Your task to perform on an android device: toggle priority inbox in the gmail app Image 0: 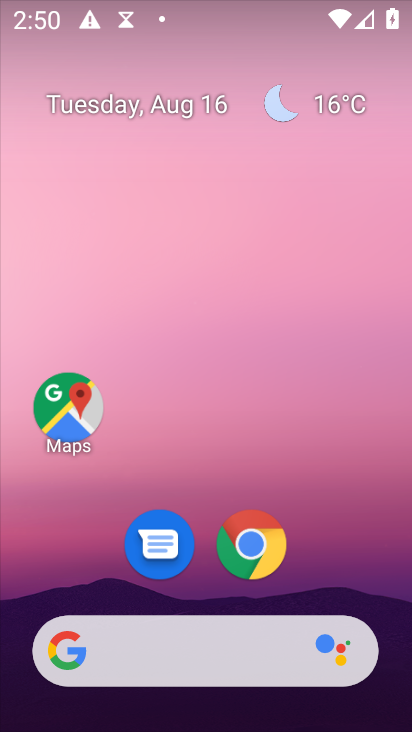
Step 0: drag from (202, 652) to (397, 257)
Your task to perform on an android device: toggle priority inbox in the gmail app Image 1: 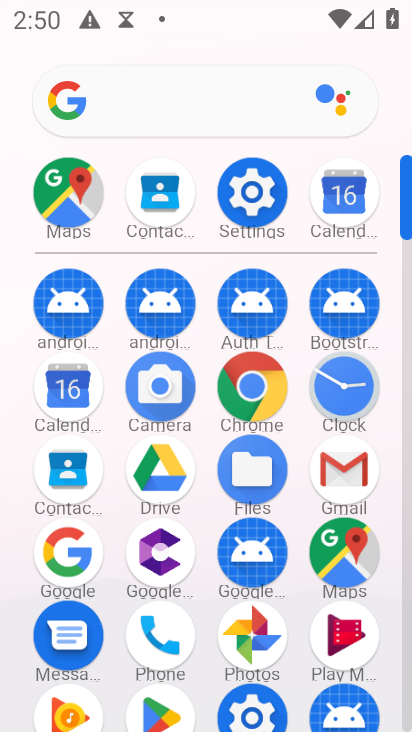
Step 1: click (343, 469)
Your task to perform on an android device: toggle priority inbox in the gmail app Image 2: 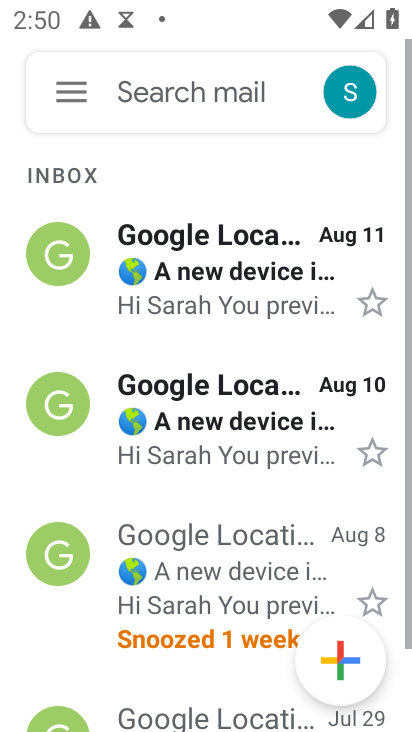
Step 2: click (69, 94)
Your task to perform on an android device: toggle priority inbox in the gmail app Image 3: 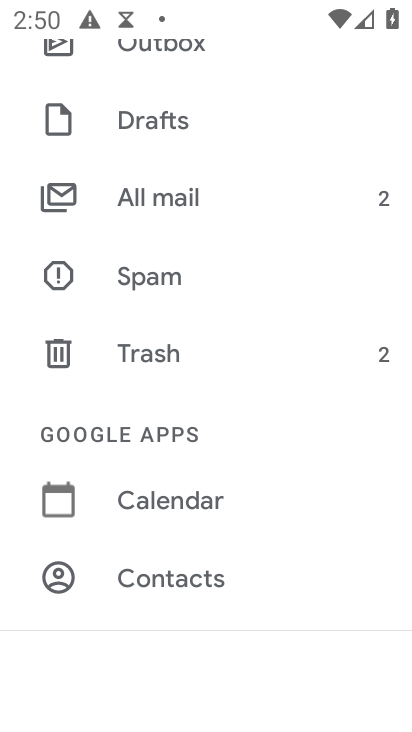
Step 3: drag from (191, 606) to (285, 448)
Your task to perform on an android device: toggle priority inbox in the gmail app Image 4: 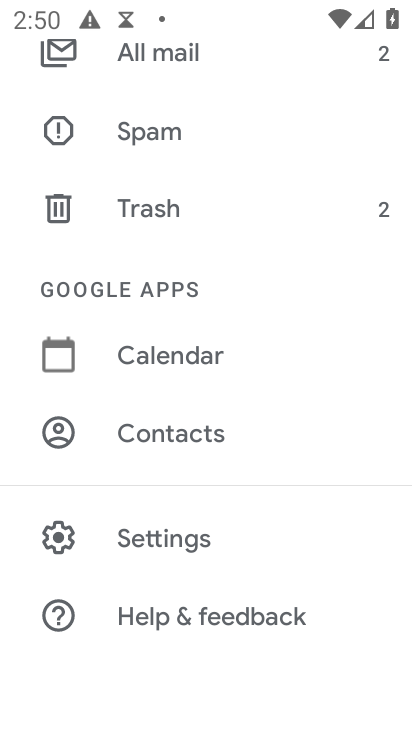
Step 4: click (187, 536)
Your task to perform on an android device: toggle priority inbox in the gmail app Image 5: 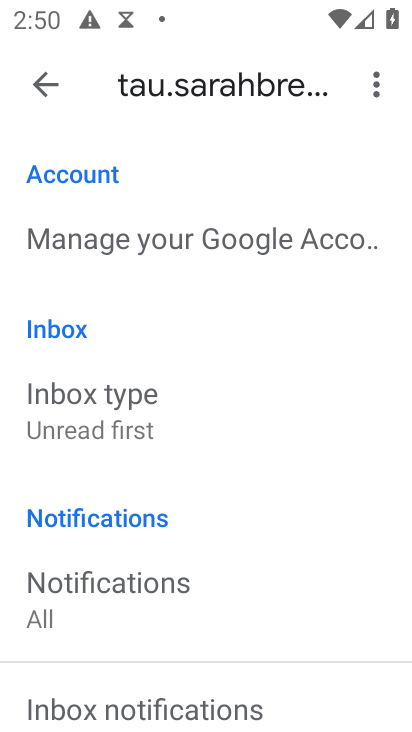
Step 5: click (111, 437)
Your task to perform on an android device: toggle priority inbox in the gmail app Image 6: 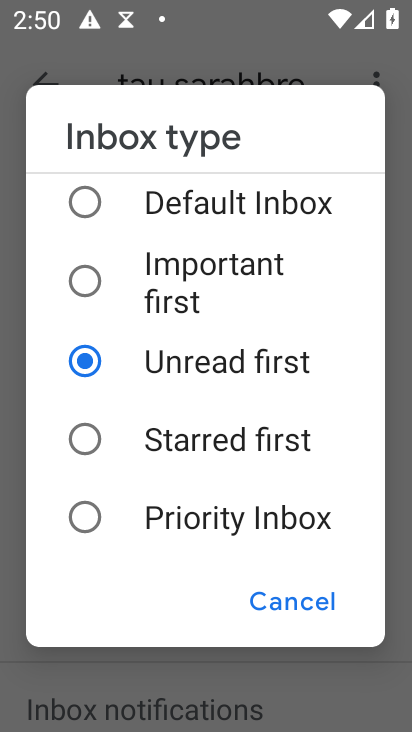
Step 6: click (82, 518)
Your task to perform on an android device: toggle priority inbox in the gmail app Image 7: 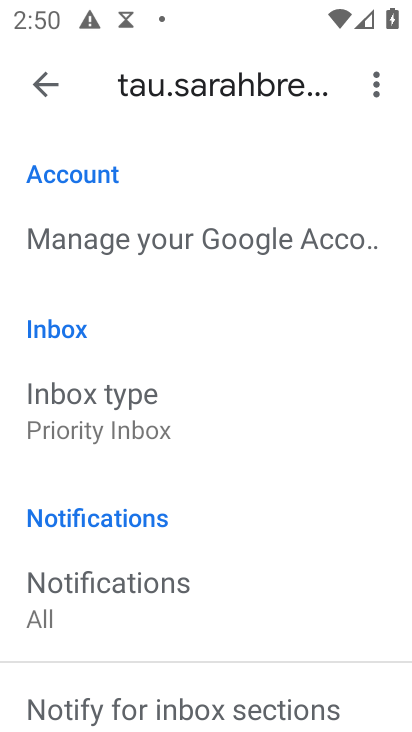
Step 7: task complete